Your task to perform on an android device: open chrome privacy settings Image 0: 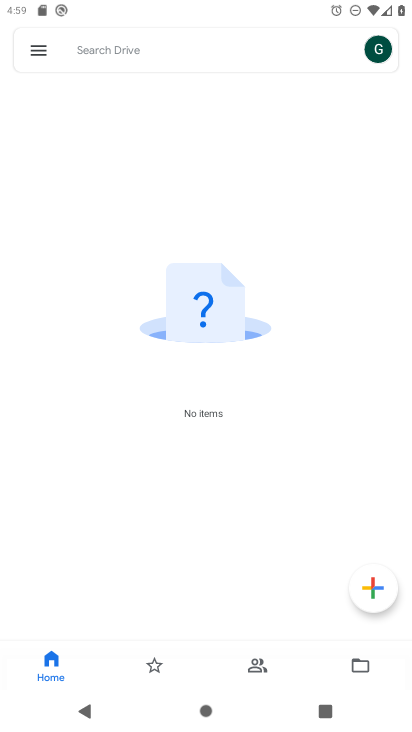
Step 0: press home button
Your task to perform on an android device: open chrome privacy settings Image 1: 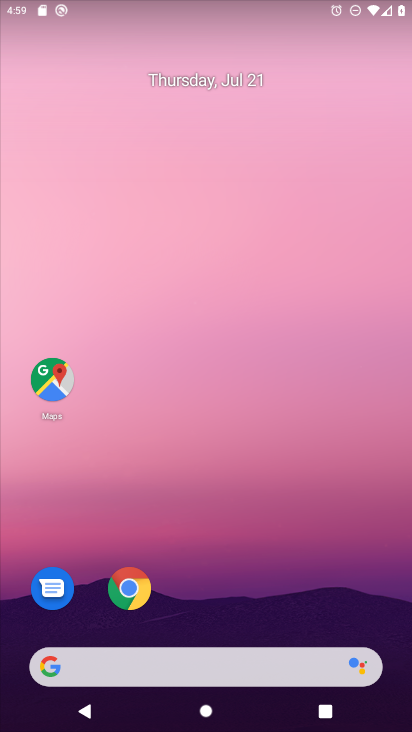
Step 1: click (140, 577)
Your task to perform on an android device: open chrome privacy settings Image 2: 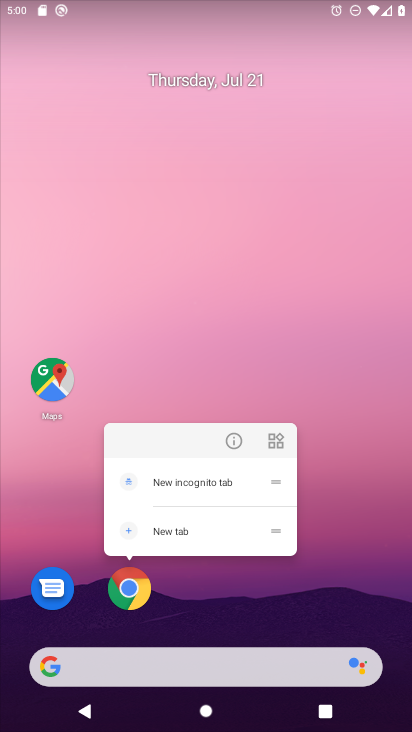
Step 2: click (140, 577)
Your task to perform on an android device: open chrome privacy settings Image 3: 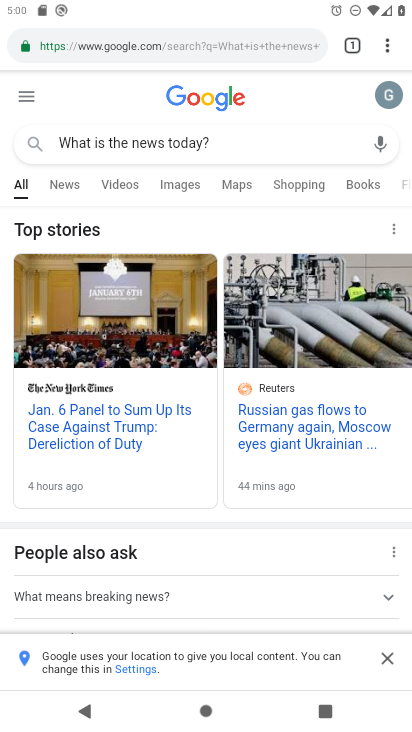
Step 3: click (385, 35)
Your task to perform on an android device: open chrome privacy settings Image 4: 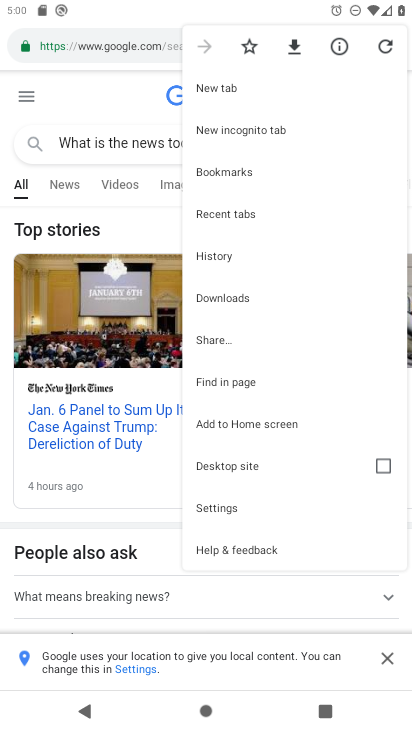
Step 4: click (257, 514)
Your task to perform on an android device: open chrome privacy settings Image 5: 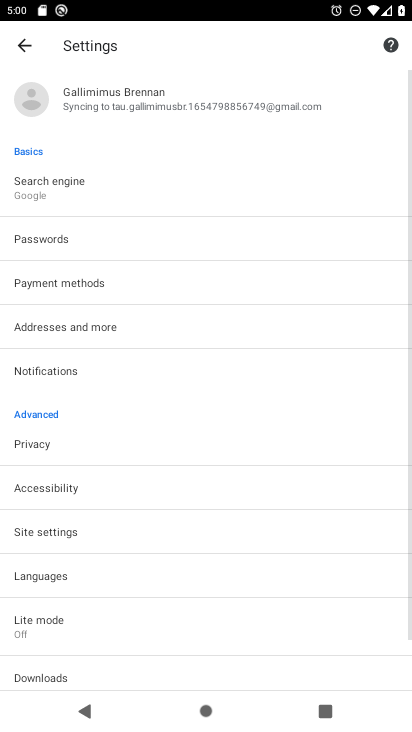
Step 5: click (132, 449)
Your task to perform on an android device: open chrome privacy settings Image 6: 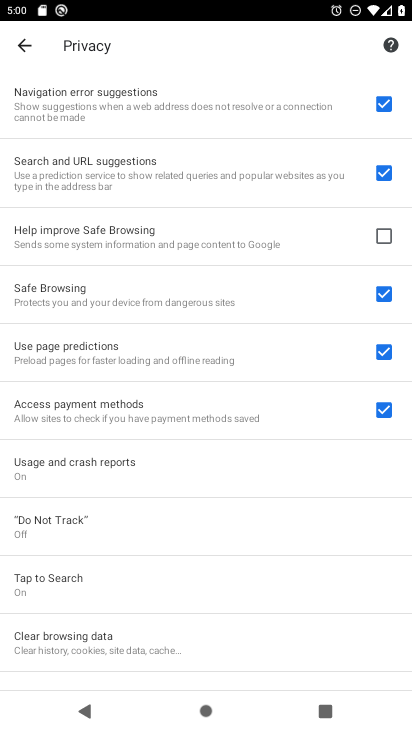
Step 6: task complete